Your task to perform on an android device: toggle translation in the chrome app Image 0: 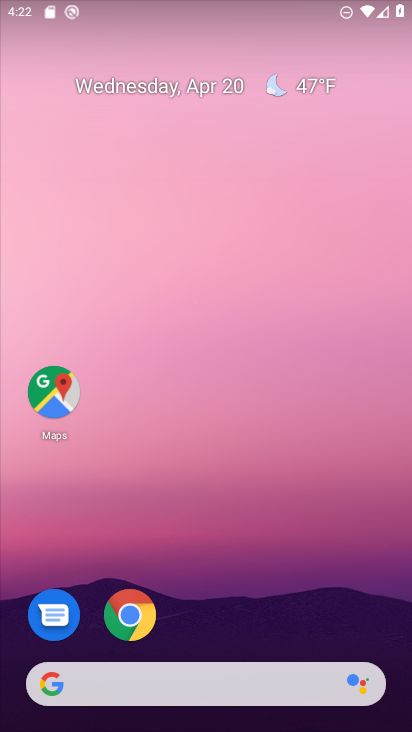
Step 0: drag from (327, 643) to (380, 312)
Your task to perform on an android device: toggle translation in the chrome app Image 1: 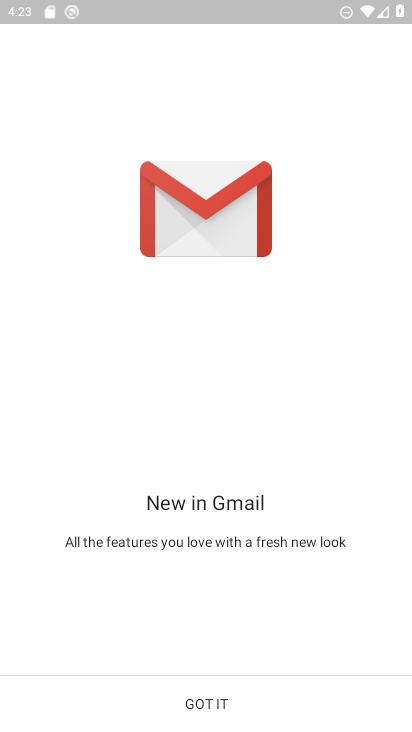
Step 1: press home button
Your task to perform on an android device: toggle translation in the chrome app Image 2: 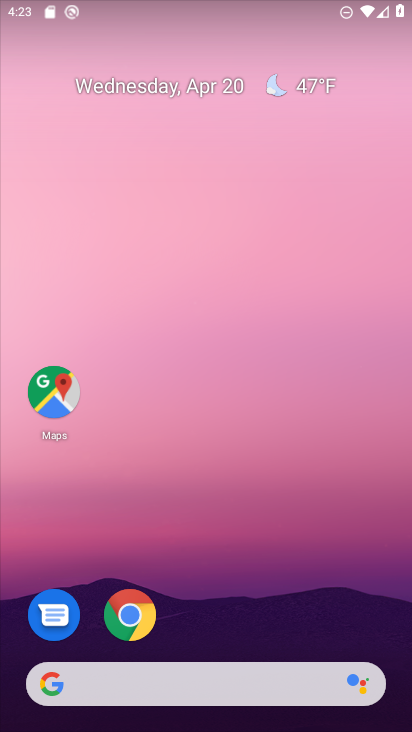
Step 2: click (128, 608)
Your task to perform on an android device: toggle translation in the chrome app Image 3: 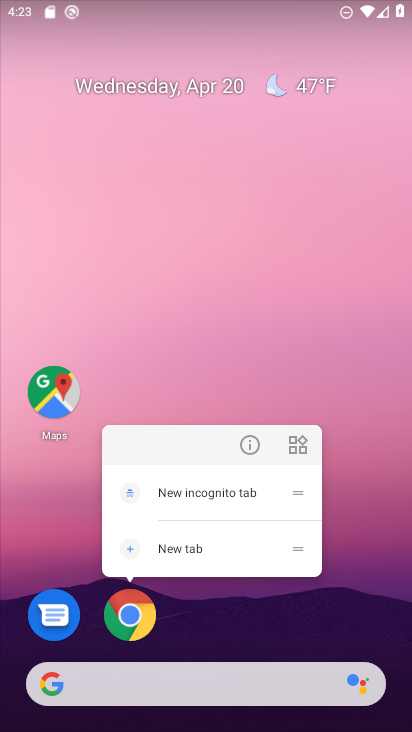
Step 3: click (151, 607)
Your task to perform on an android device: toggle translation in the chrome app Image 4: 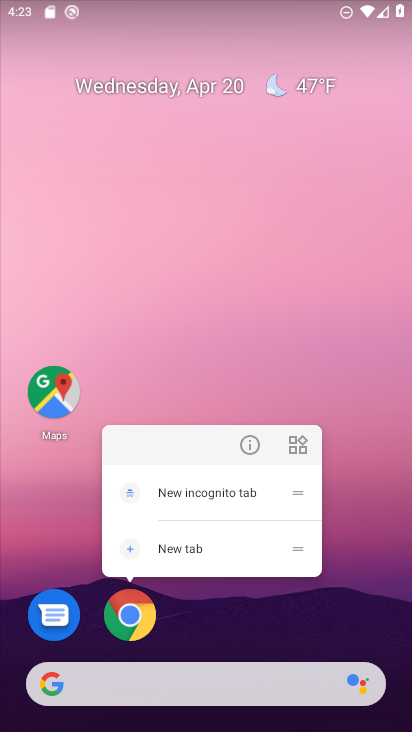
Step 4: click (129, 608)
Your task to perform on an android device: toggle translation in the chrome app Image 5: 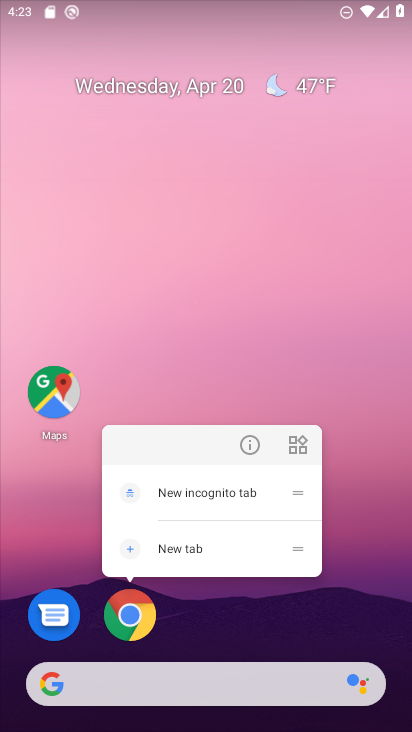
Step 5: click (129, 608)
Your task to perform on an android device: toggle translation in the chrome app Image 6: 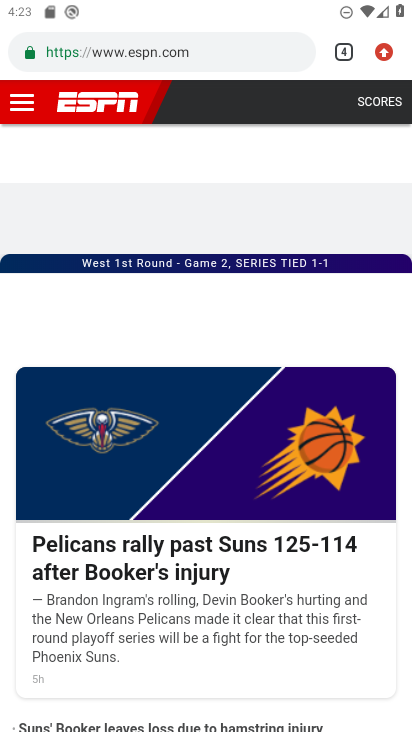
Step 6: click (388, 50)
Your task to perform on an android device: toggle translation in the chrome app Image 7: 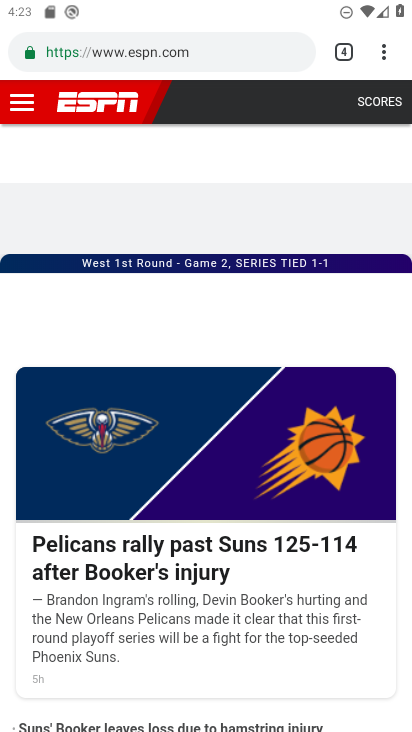
Step 7: click (384, 49)
Your task to perform on an android device: toggle translation in the chrome app Image 8: 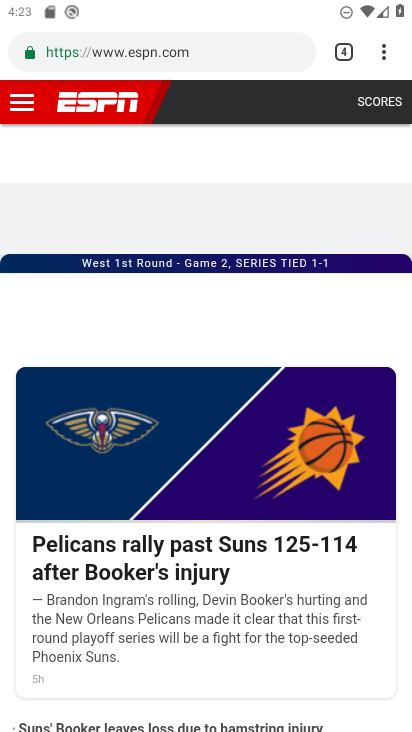
Step 8: click (384, 51)
Your task to perform on an android device: toggle translation in the chrome app Image 9: 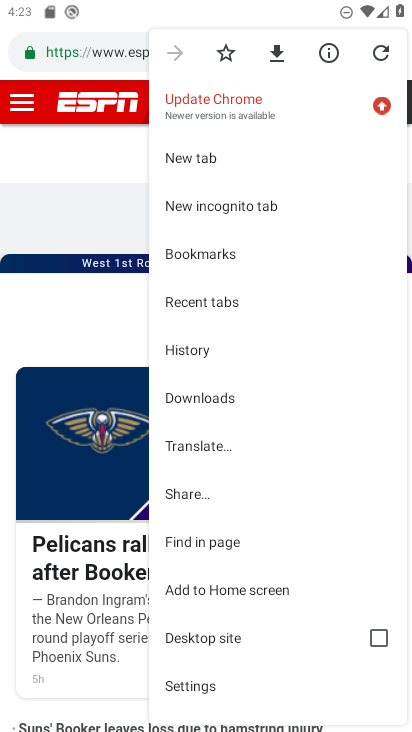
Step 9: click (192, 684)
Your task to perform on an android device: toggle translation in the chrome app Image 10: 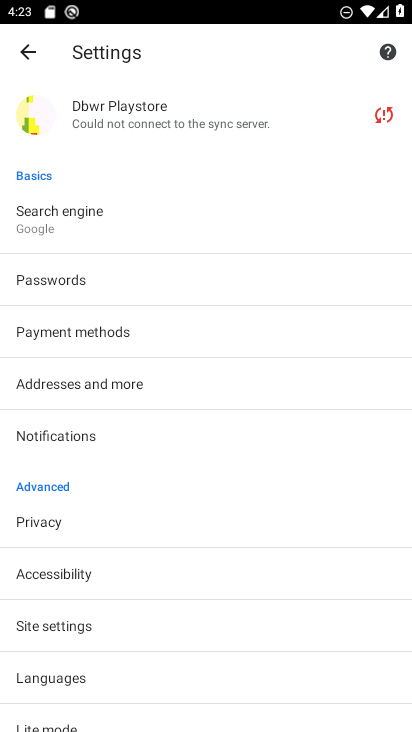
Step 10: click (91, 686)
Your task to perform on an android device: toggle translation in the chrome app Image 11: 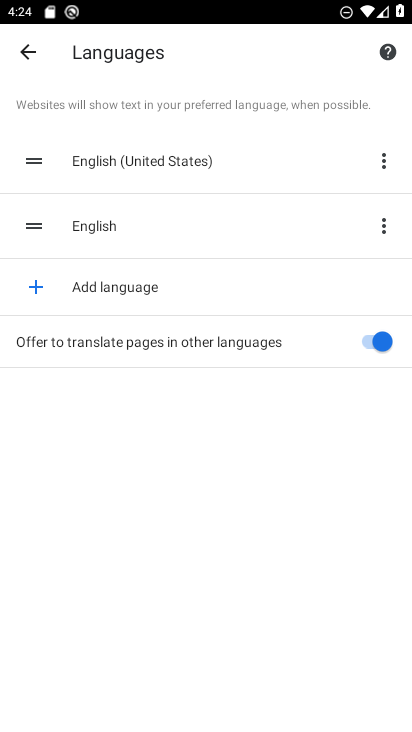
Step 11: click (384, 331)
Your task to perform on an android device: toggle translation in the chrome app Image 12: 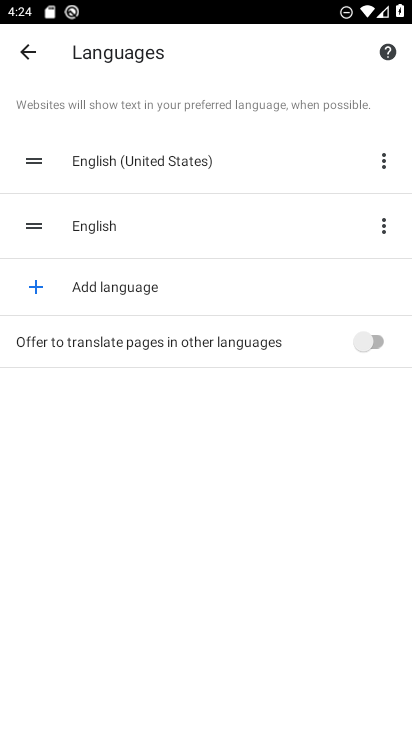
Step 12: task complete